Your task to perform on an android device: What's on my calendar today? Image 0: 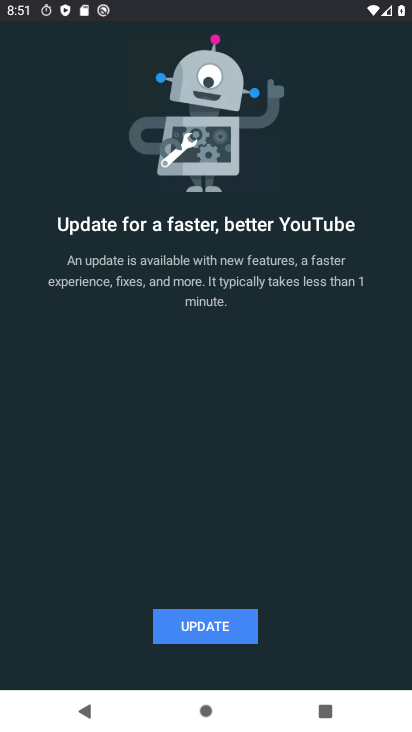
Step 0: press back button
Your task to perform on an android device: What's on my calendar today? Image 1: 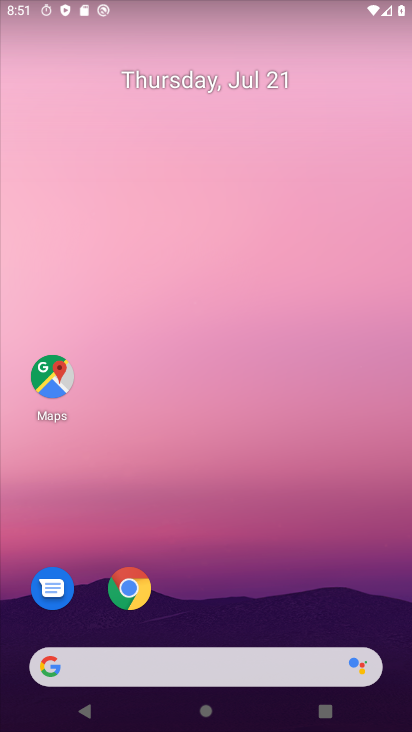
Step 1: drag from (245, 546) to (218, 273)
Your task to perform on an android device: What's on my calendar today? Image 2: 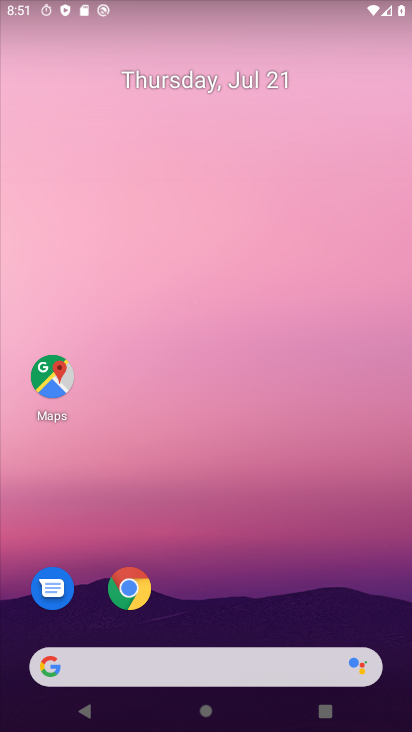
Step 2: drag from (220, 665) to (170, 267)
Your task to perform on an android device: What's on my calendar today? Image 3: 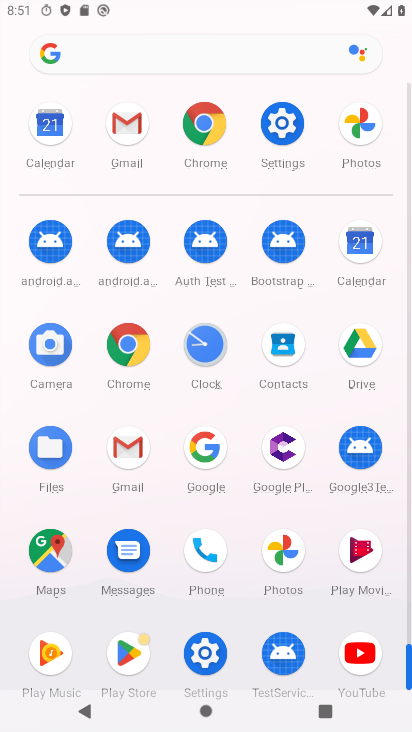
Step 3: click (283, 132)
Your task to perform on an android device: What's on my calendar today? Image 4: 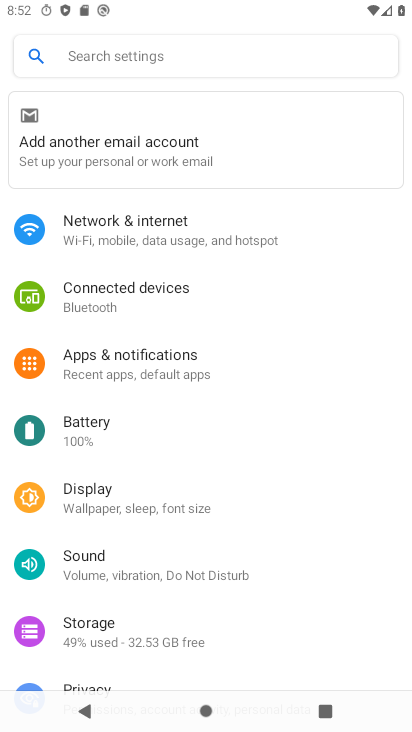
Step 4: press back button
Your task to perform on an android device: What's on my calendar today? Image 5: 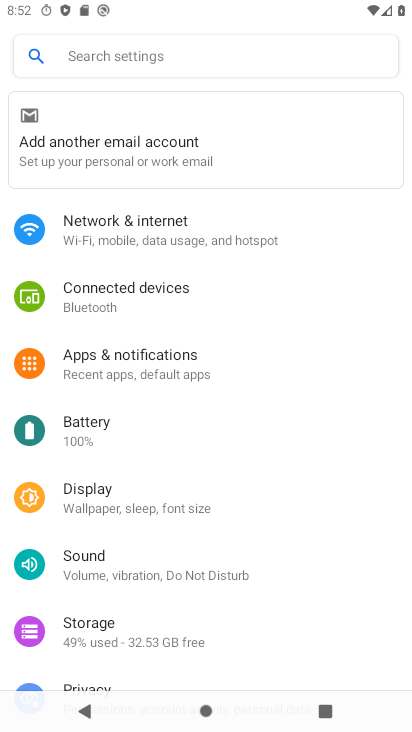
Step 5: press back button
Your task to perform on an android device: What's on my calendar today? Image 6: 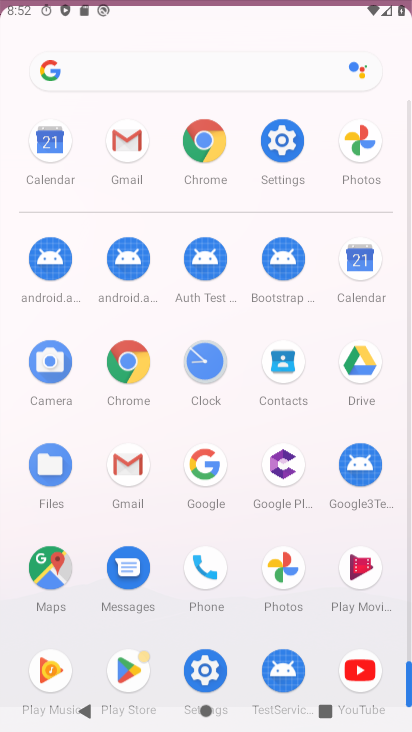
Step 6: press back button
Your task to perform on an android device: What's on my calendar today? Image 7: 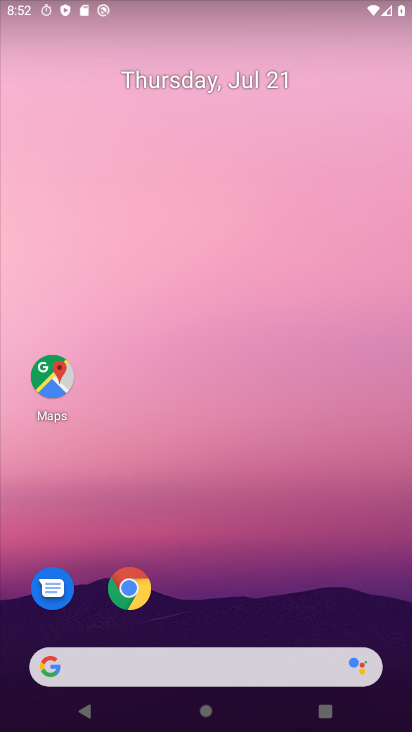
Step 7: drag from (230, 606) to (217, 210)
Your task to perform on an android device: What's on my calendar today? Image 8: 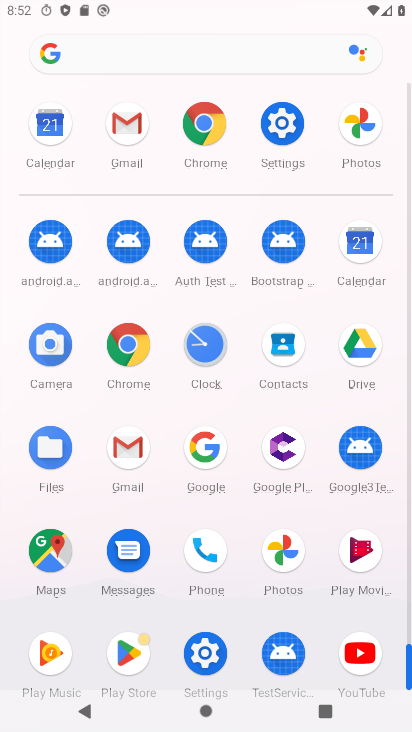
Step 8: click (355, 272)
Your task to perform on an android device: What's on my calendar today? Image 9: 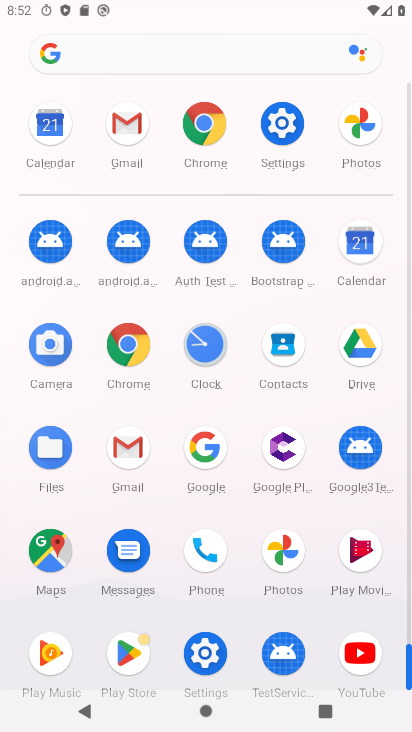
Step 9: click (356, 242)
Your task to perform on an android device: What's on my calendar today? Image 10: 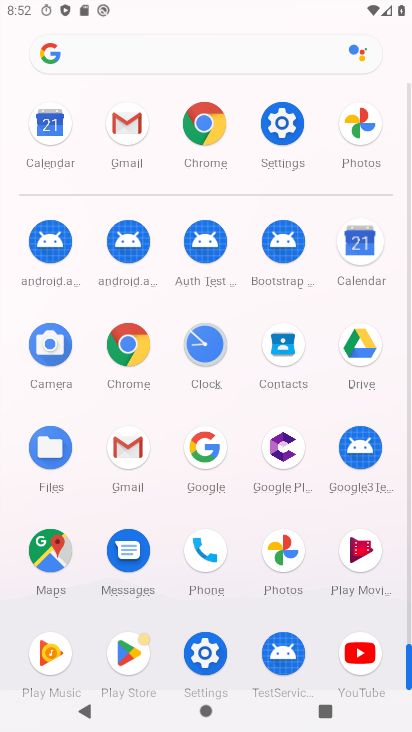
Step 10: click (356, 241)
Your task to perform on an android device: What's on my calendar today? Image 11: 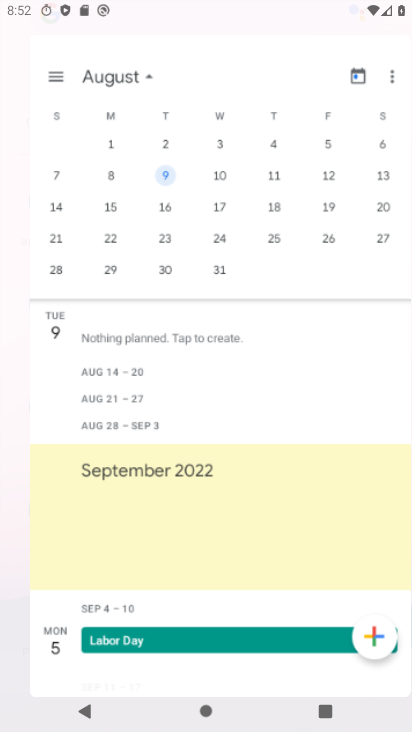
Step 11: click (356, 241)
Your task to perform on an android device: What's on my calendar today? Image 12: 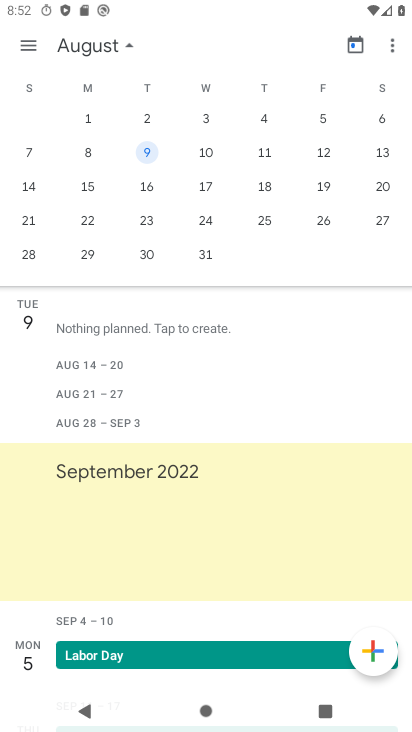
Step 12: click (205, 187)
Your task to perform on an android device: What's on my calendar today? Image 13: 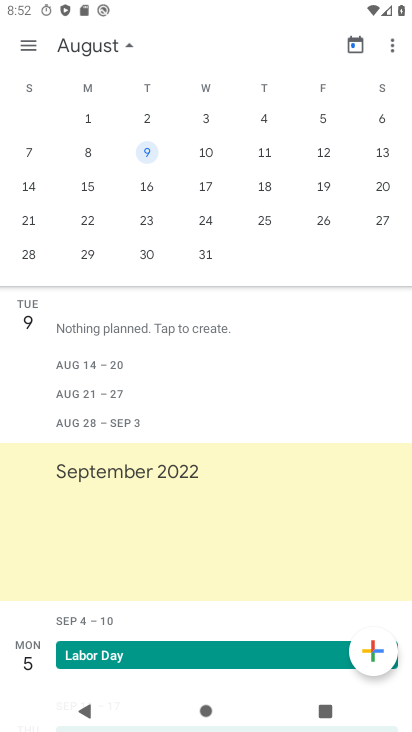
Step 13: click (205, 187)
Your task to perform on an android device: What's on my calendar today? Image 14: 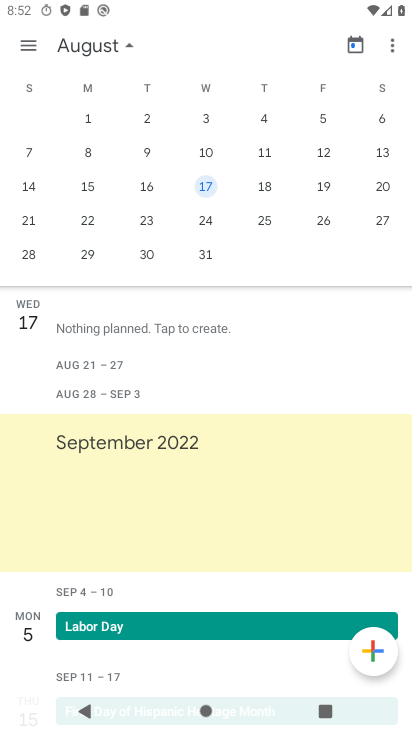
Step 14: drag from (60, 201) to (391, 259)
Your task to perform on an android device: What's on my calendar today? Image 15: 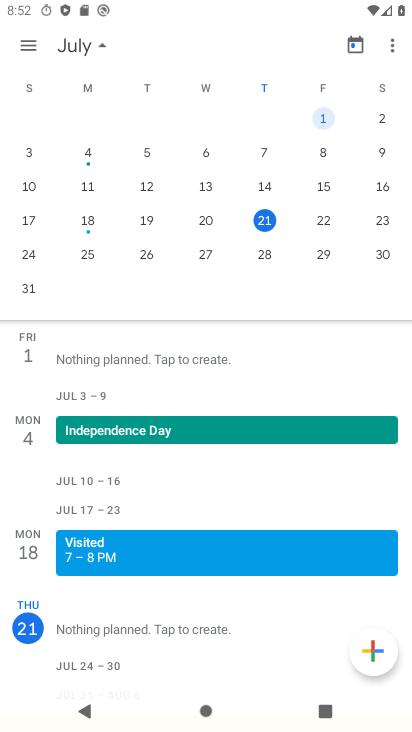
Step 15: click (322, 209)
Your task to perform on an android device: What's on my calendar today? Image 16: 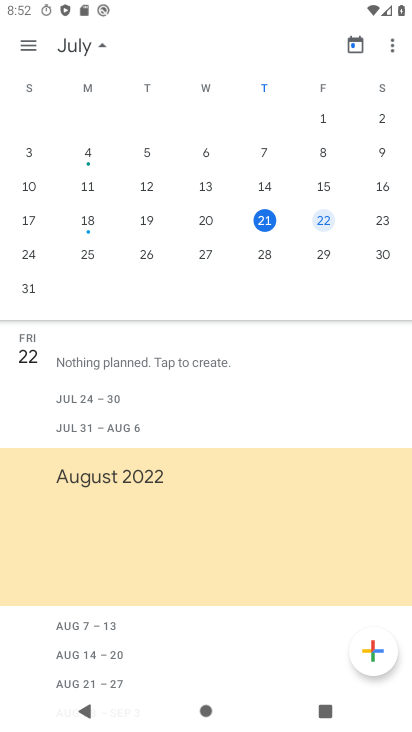
Step 16: click (323, 215)
Your task to perform on an android device: What's on my calendar today? Image 17: 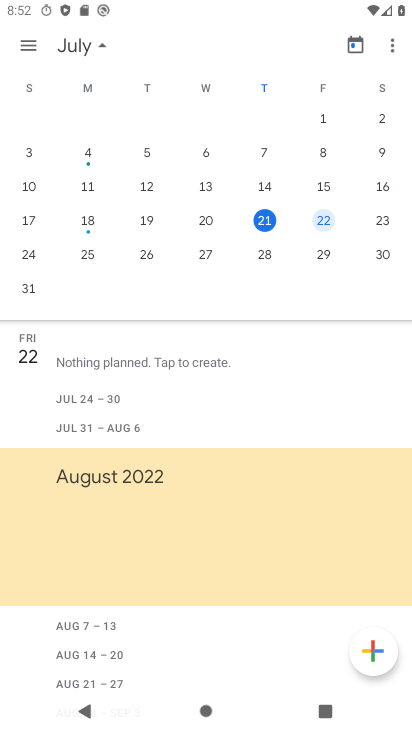
Step 17: click (330, 212)
Your task to perform on an android device: What's on my calendar today? Image 18: 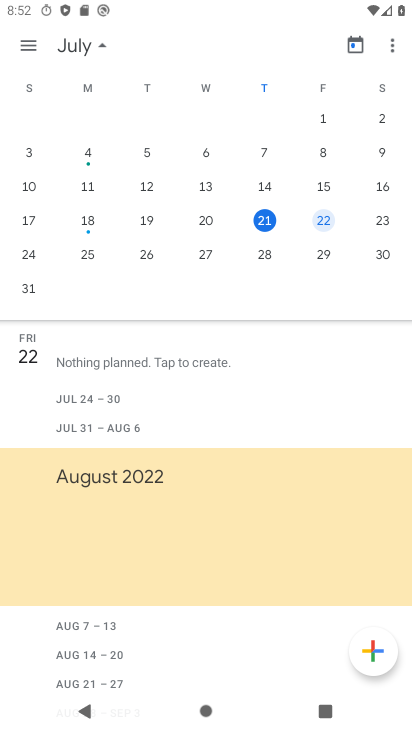
Step 18: click (332, 212)
Your task to perform on an android device: What's on my calendar today? Image 19: 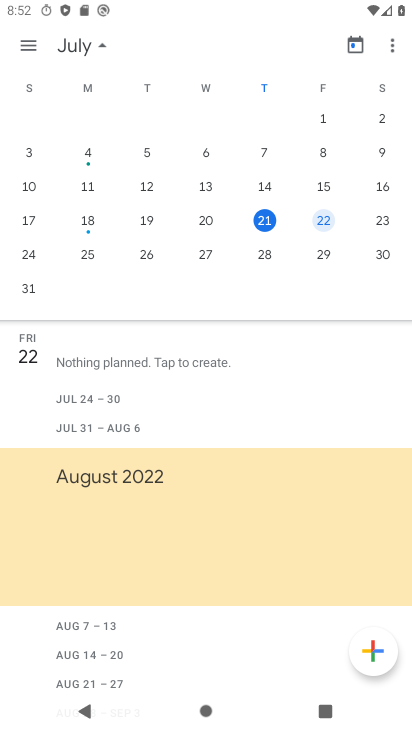
Step 19: task complete